Your task to perform on an android device: Open eBay Image 0: 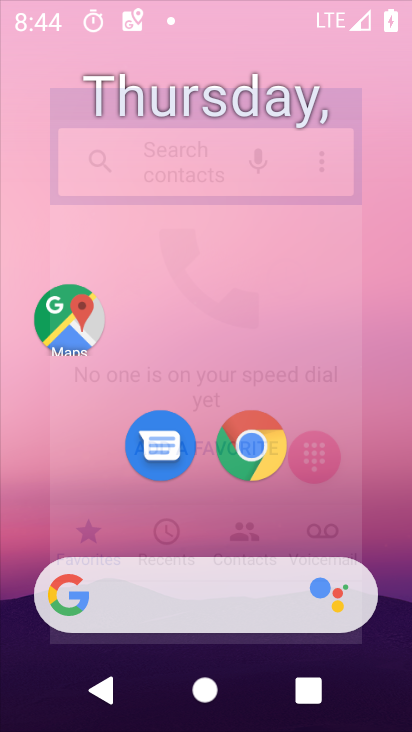
Step 0: drag from (217, 533) to (268, 101)
Your task to perform on an android device: Open eBay Image 1: 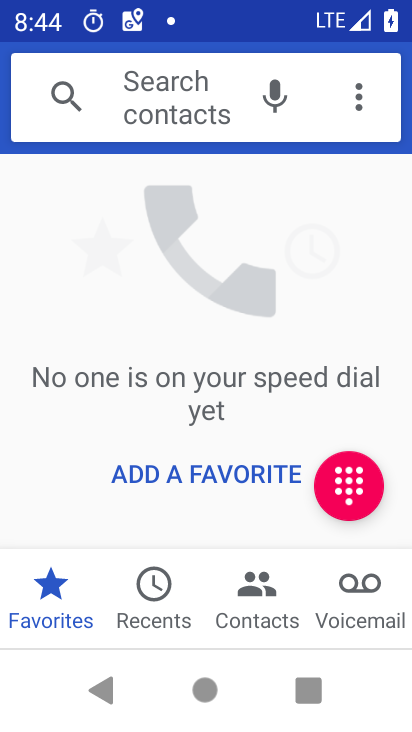
Step 1: press home button
Your task to perform on an android device: Open eBay Image 2: 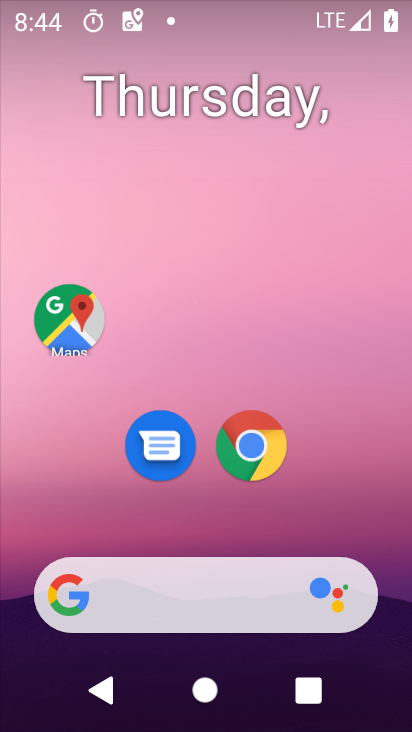
Step 2: drag from (235, 520) to (235, 402)
Your task to perform on an android device: Open eBay Image 3: 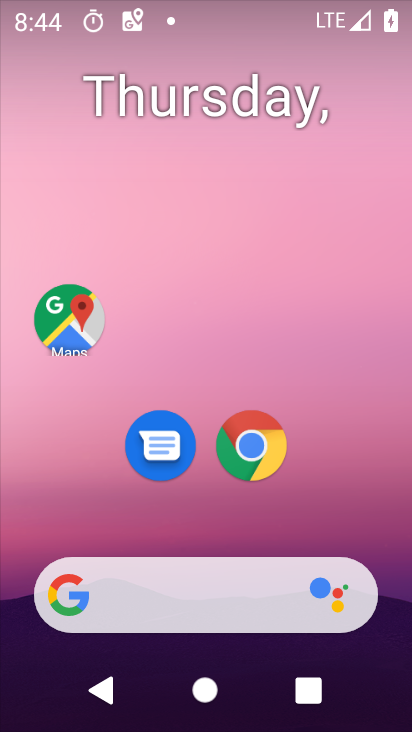
Step 3: drag from (217, 523) to (264, 117)
Your task to perform on an android device: Open eBay Image 4: 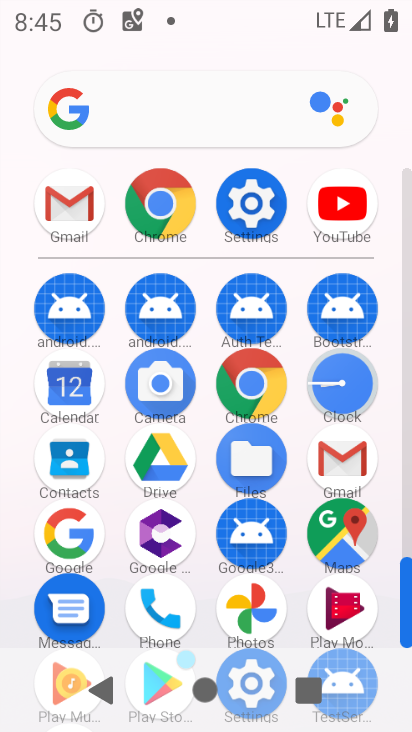
Step 4: click (208, 113)
Your task to perform on an android device: Open eBay Image 5: 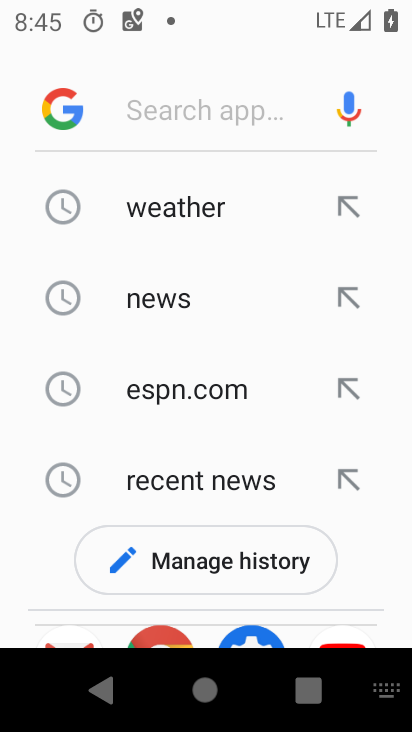
Step 5: type "ebay"
Your task to perform on an android device: Open eBay Image 6: 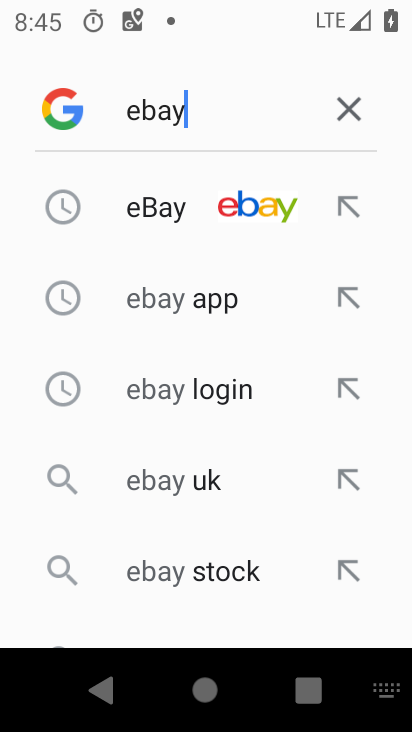
Step 6: click (169, 227)
Your task to perform on an android device: Open eBay Image 7: 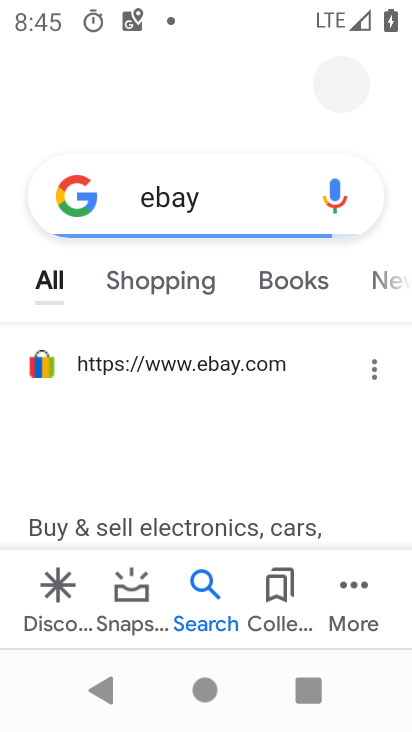
Step 7: task complete